Your task to perform on an android device: Go to CNN.com Image 0: 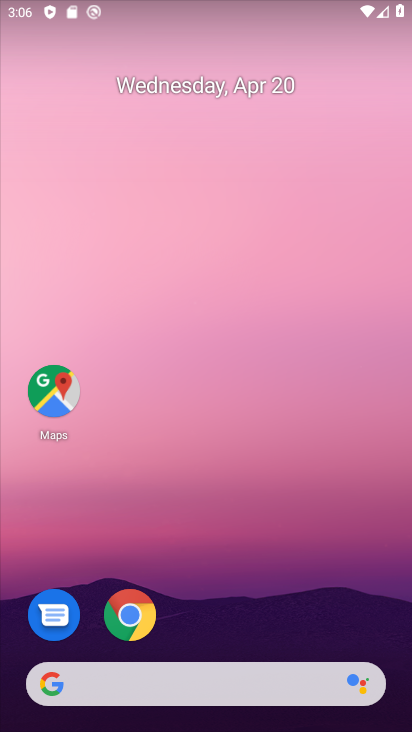
Step 0: drag from (264, 404) to (256, 318)
Your task to perform on an android device: Go to CNN.com Image 1: 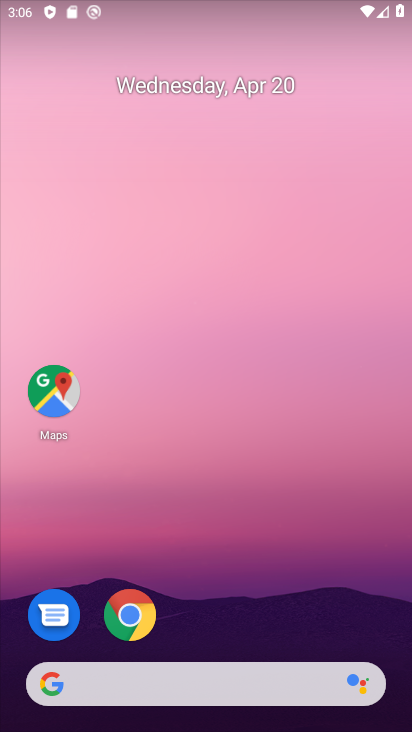
Step 1: drag from (186, 585) to (159, 26)
Your task to perform on an android device: Go to CNN.com Image 2: 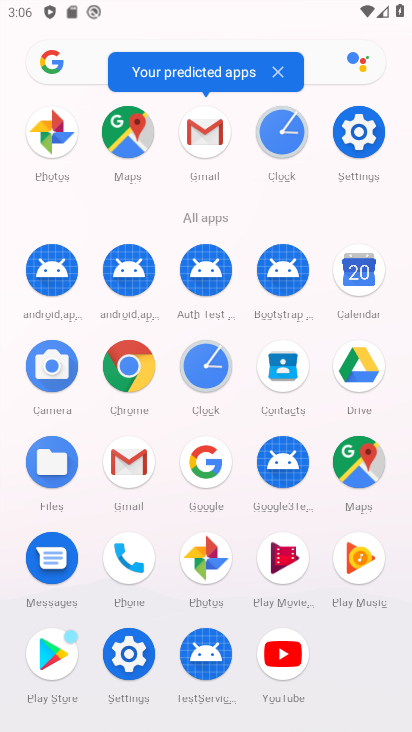
Step 2: click (143, 356)
Your task to perform on an android device: Go to CNN.com Image 3: 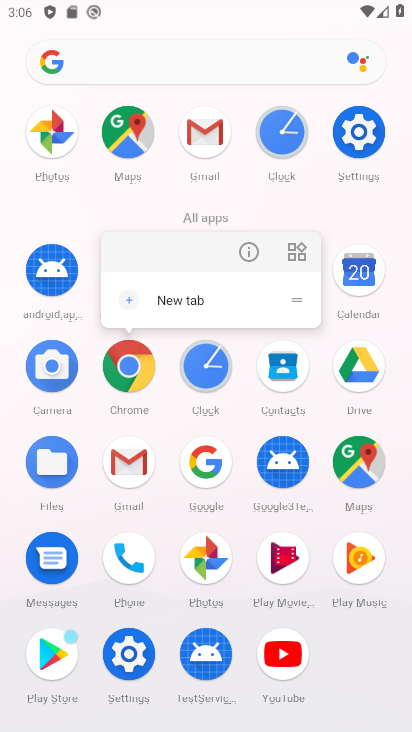
Step 3: click (117, 376)
Your task to perform on an android device: Go to CNN.com Image 4: 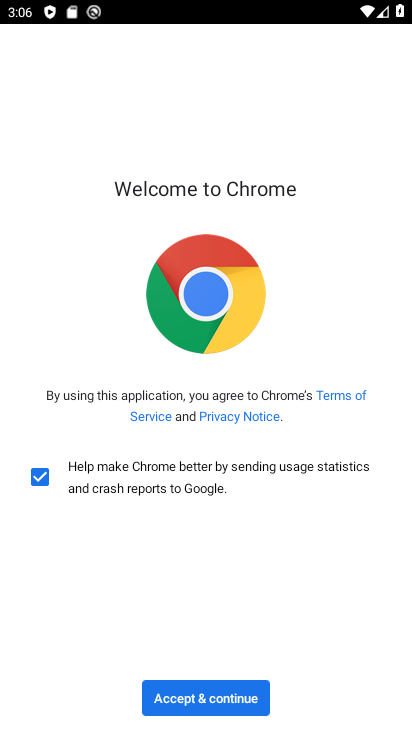
Step 4: click (205, 690)
Your task to perform on an android device: Go to CNN.com Image 5: 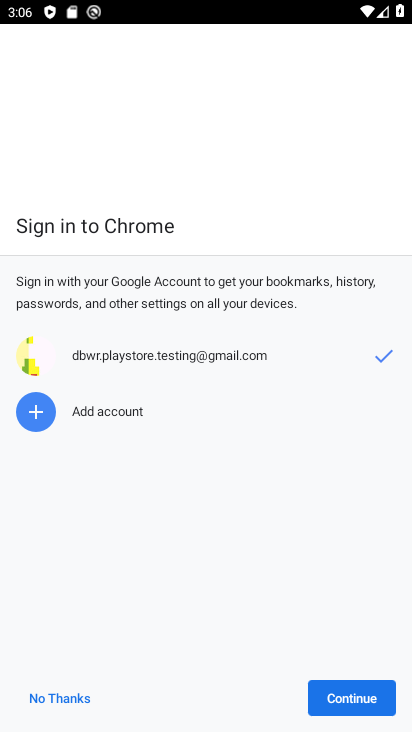
Step 5: click (346, 692)
Your task to perform on an android device: Go to CNN.com Image 6: 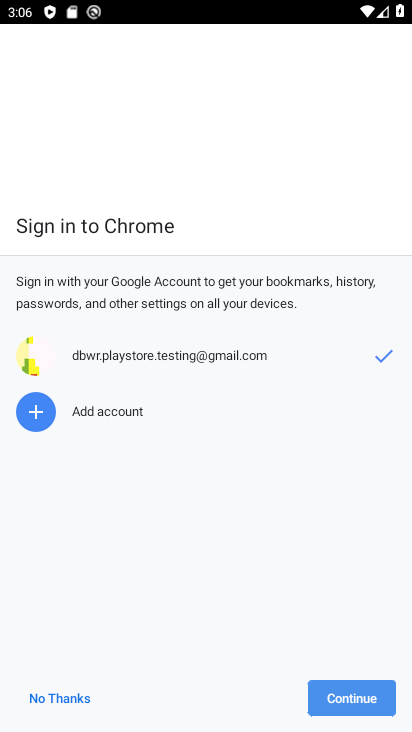
Step 6: click (345, 692)
Your task to perform on an android device: Go to CNN.com Image 7: 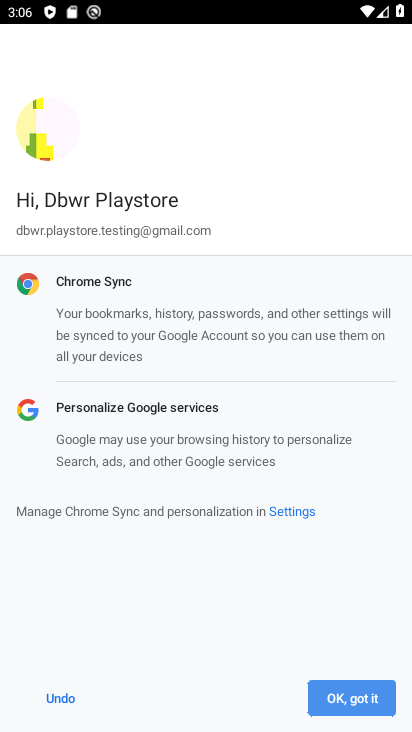
Step 7: click (345, 692)
Your task to perform on an android device: Go to CNN.com Image 8: 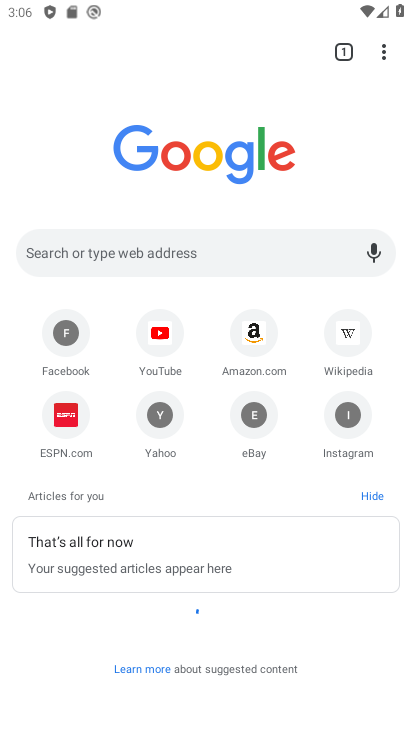
Step 8: click (228, 264)
Your task to perform on an android device: Go to CNN.com Image 9: 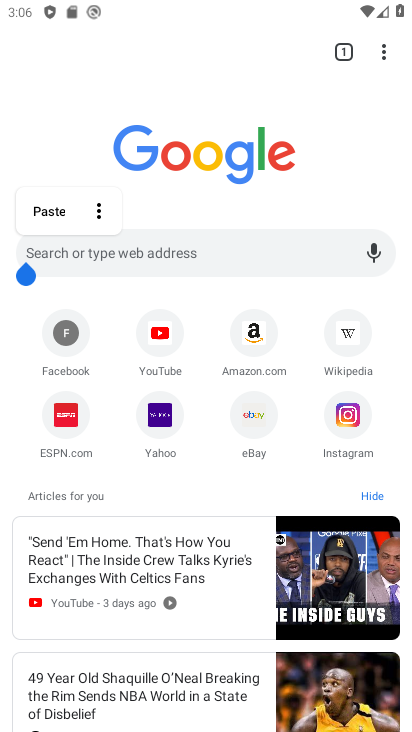
Step 9: click (283, 250)
Your task to perform on an android device: Go to CNN.com Image 10: 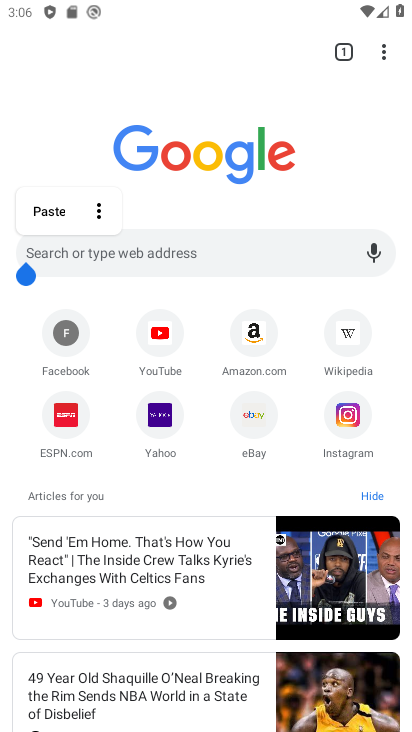
Step 10: click (204, 273)
Your task to perform on an android device: Go to CNN.com Image 11: 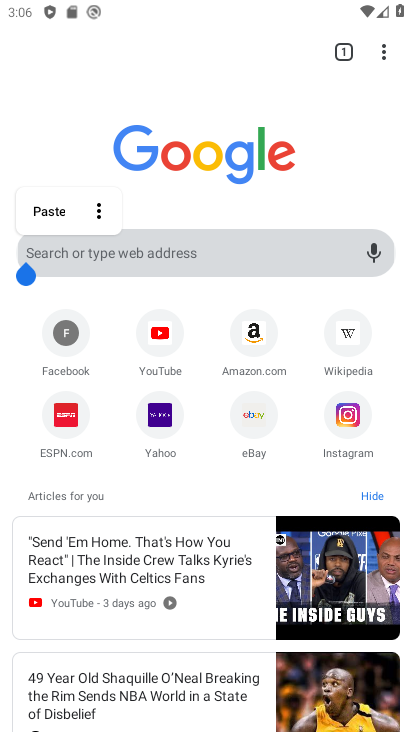
Step 11: click (197, 259)
Your task to perform on an android device: Go to CNN.com Image 12: 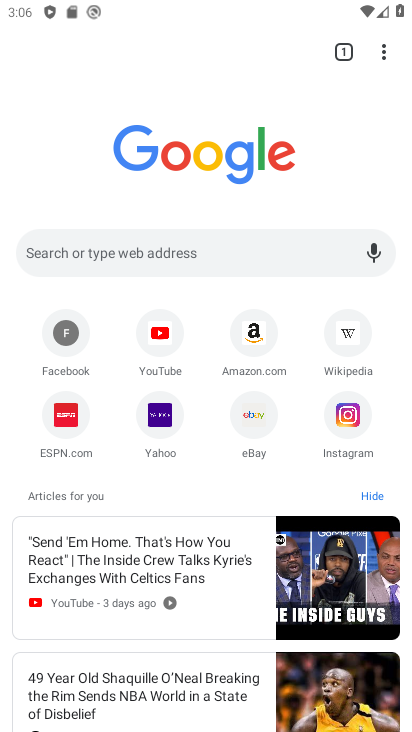
Step 12: click (285, 247)
Your task to perform on an android device: Go to CNN.com Image 13: 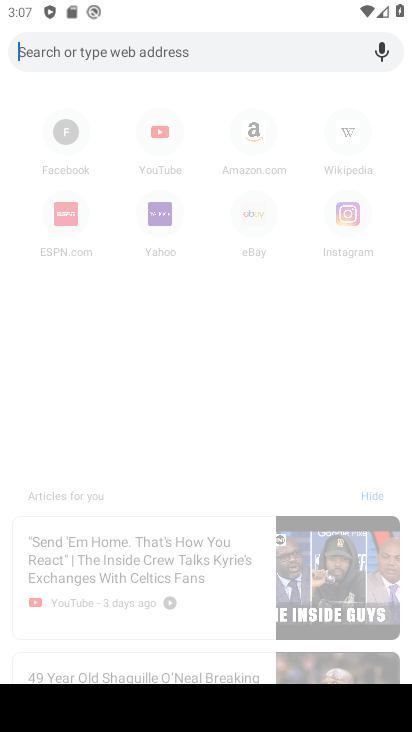
Step 13: type "CNN.com"
Your task to perform on an android device: Go to CNN.com Image 14: 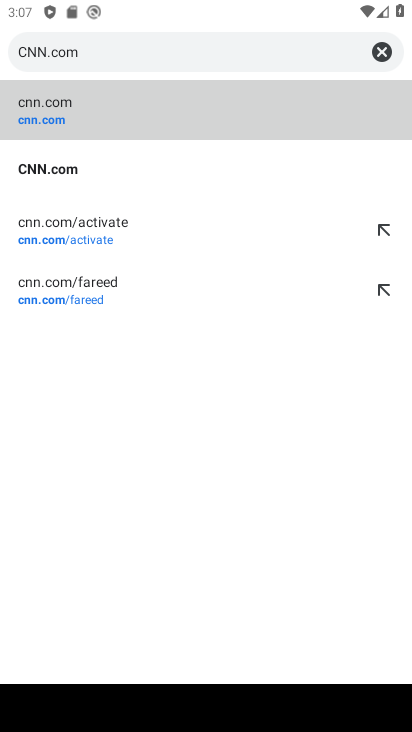
Step 14: click (38, 99)
Your task to perform on an android device: Go to CNN.com Image 15: 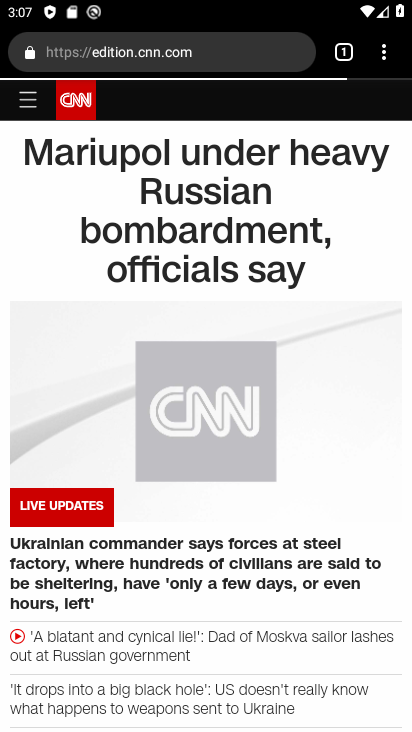
Step 15: task complete